Your task to perform on an android device: Clear all items from cart on newegg. Image 0: 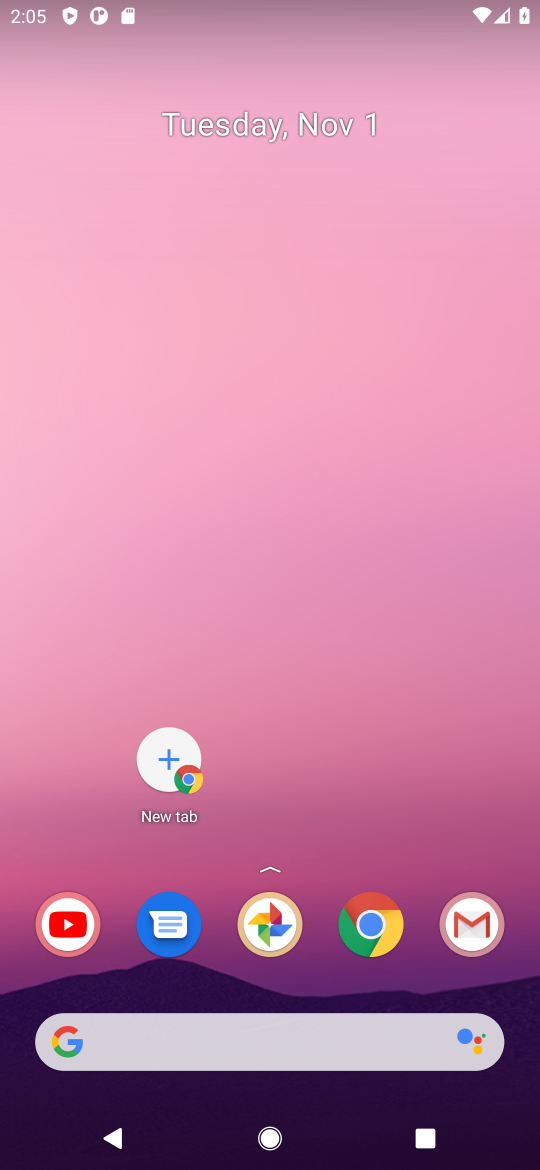
Step 0: click (390, 926)
Your task to perform on an android device: Clear all items from cart on newegg. Image 1: 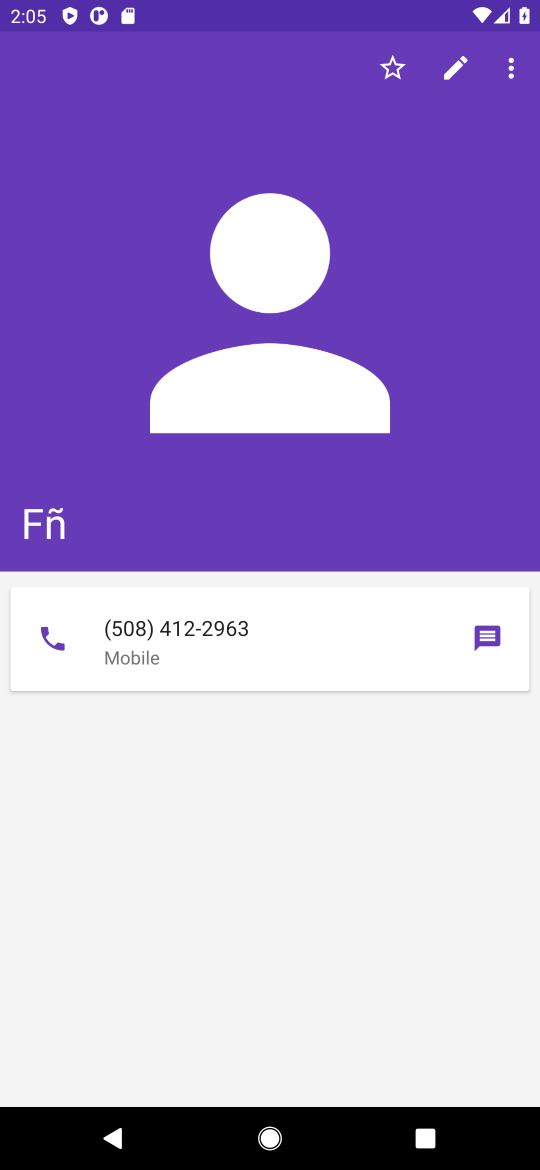
Step 1: press home button
Your task to perform on an android device: Clear all items from cart on newegg. Image 2: 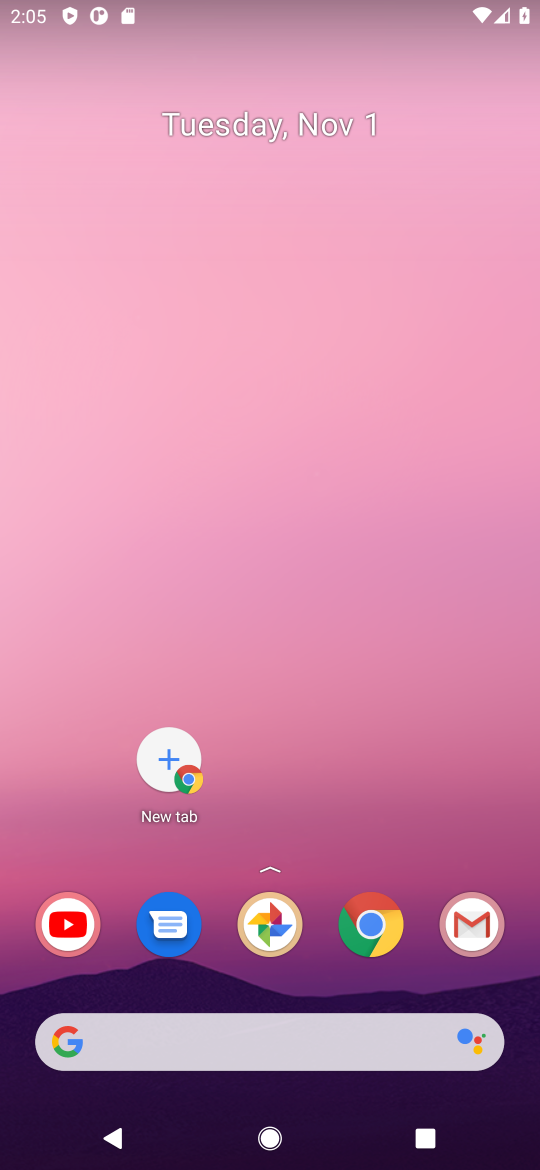
Step 2: click (379, 929)
Your task to perform on an android device: Clear all items from cart on newegg. Image 3: 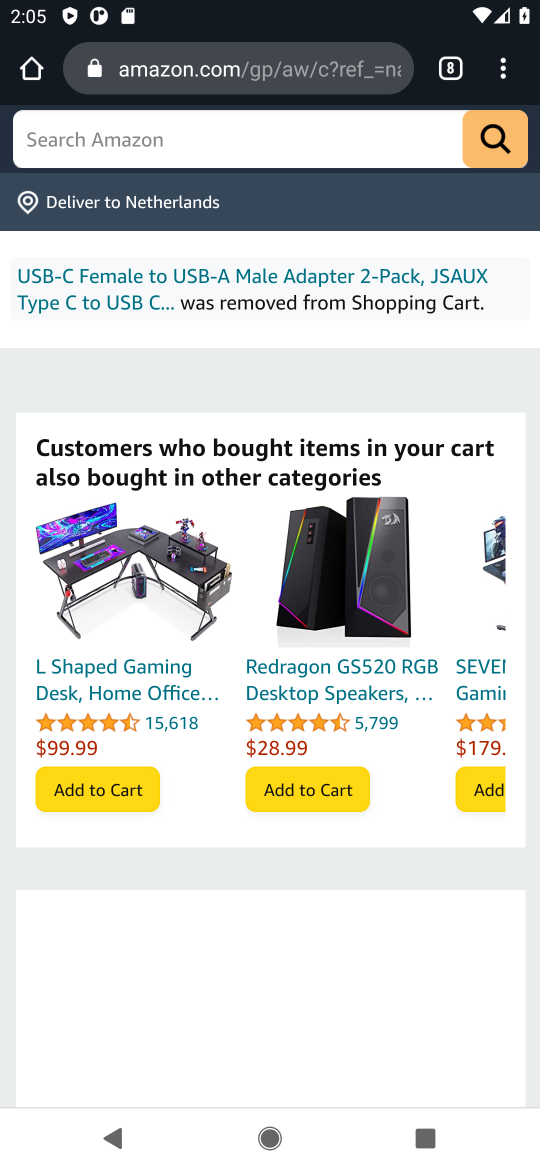
Step 3: click (236, 73)
Your task to perform on an android device: Clear all items from cart on newegg. Image 4: 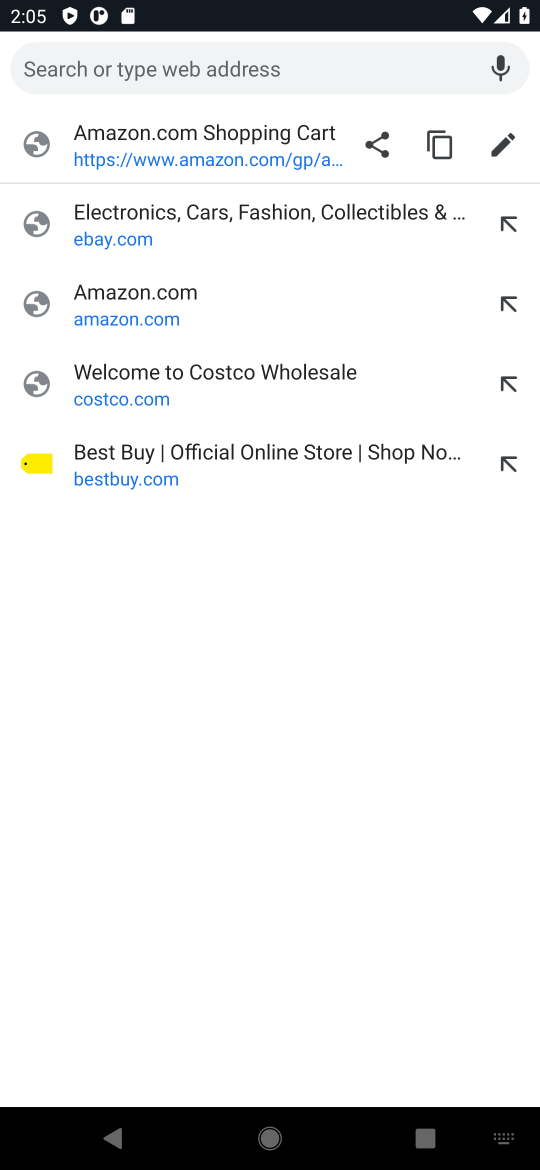
Step 4: type "newegg"
Your task to perform on an android device: Clear all items from cart on newegg. Image 5: 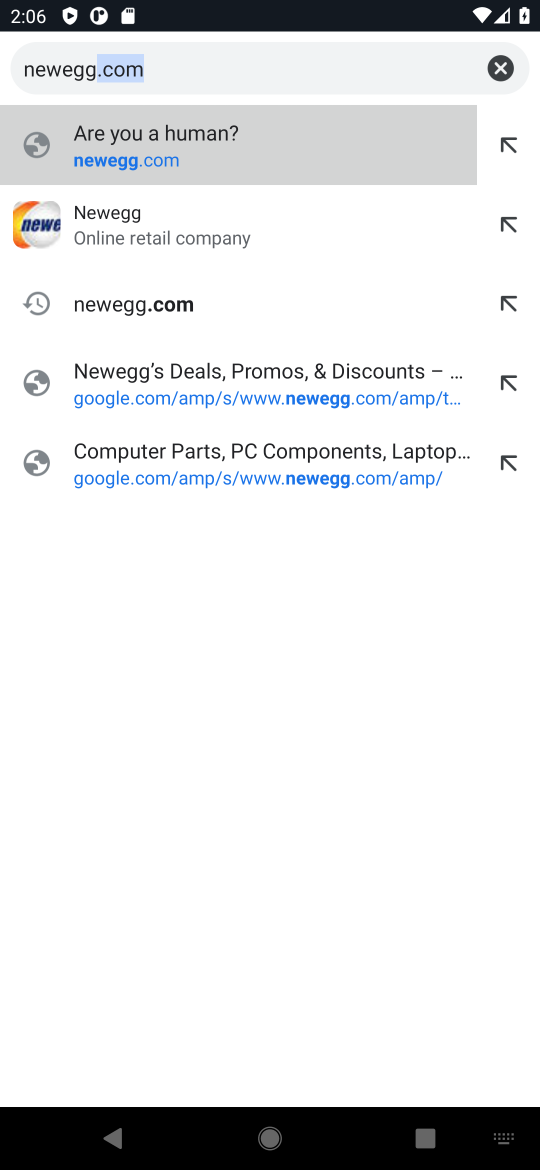
Step 5: click (144, 246)
Your task to perform on an android device: Clear all items from cart on newegg. Image 6: 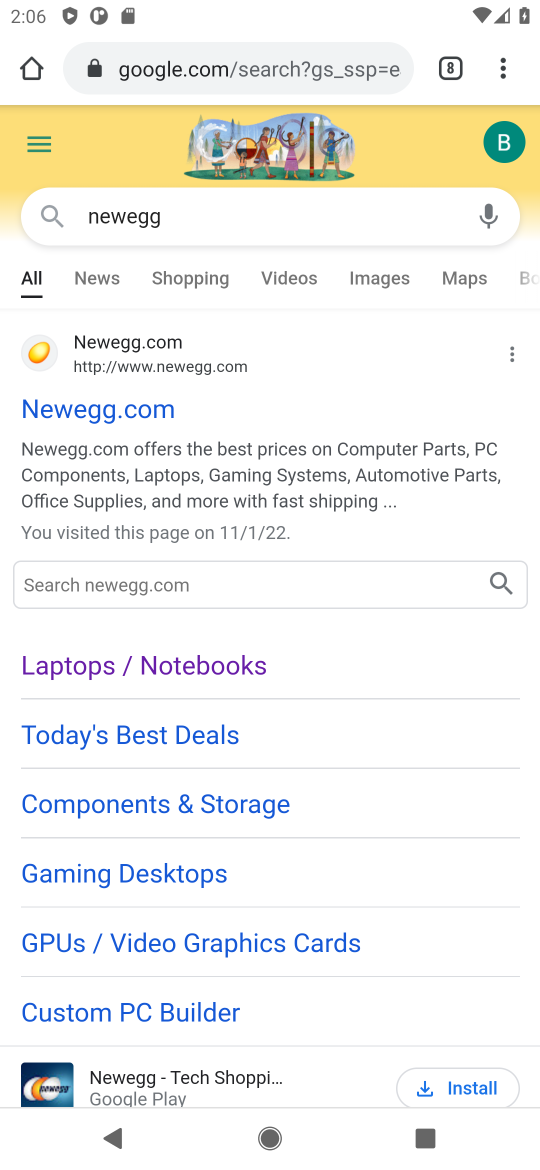
Step 6: drag from (194, 676) to (314, 76)
Your task to perform on an android device: Clear all items from cart on newegg. Image 7: 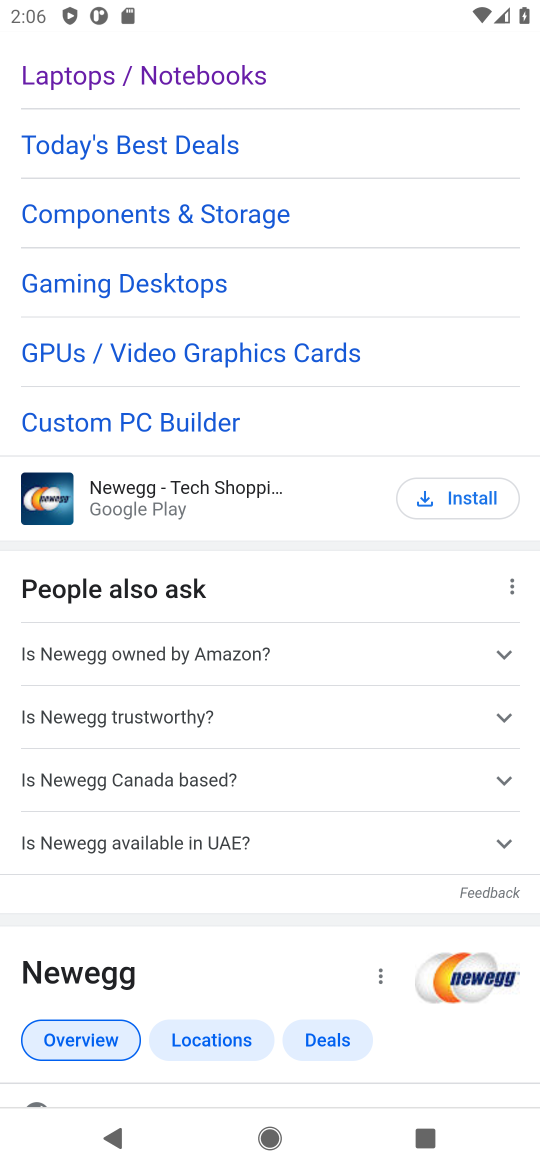
Step 7: click (189, 92)
Your task to perform on an android device: Clear all items from cart on newegg. Image 8: 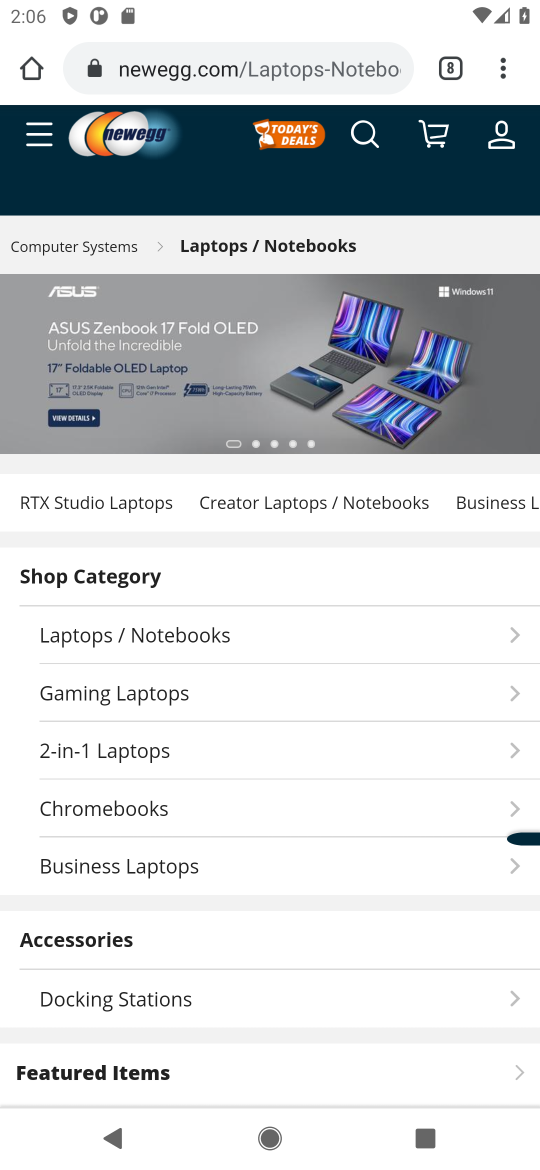
Step 8: click (441, 129)
Your task to perform on an android device: Clear all items from cart on newegg. Image 9: 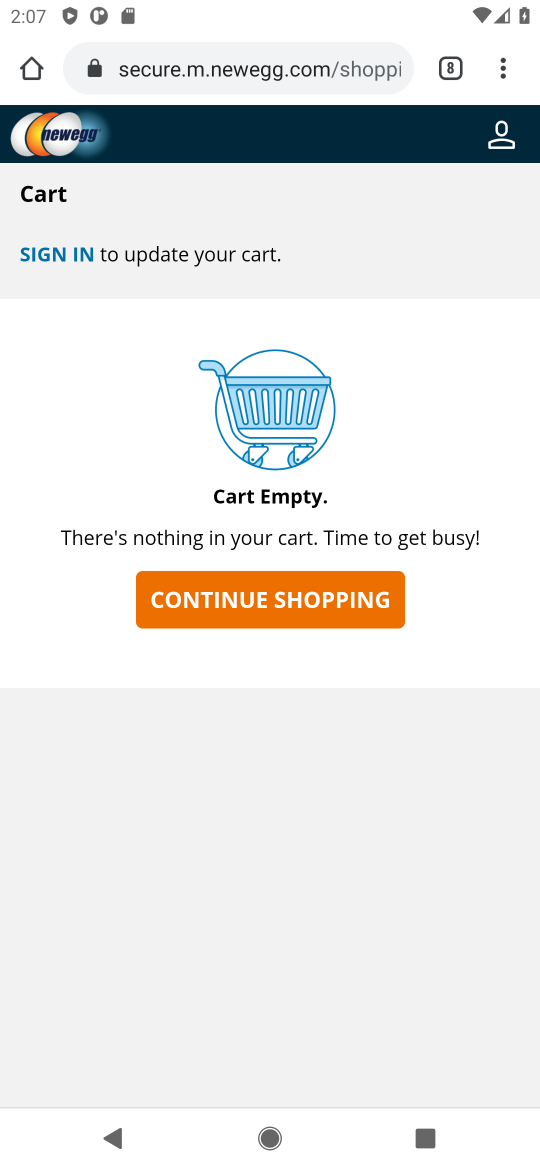
Step 9: task complete